Your task to perform on an android device: change the clock style Image 0: 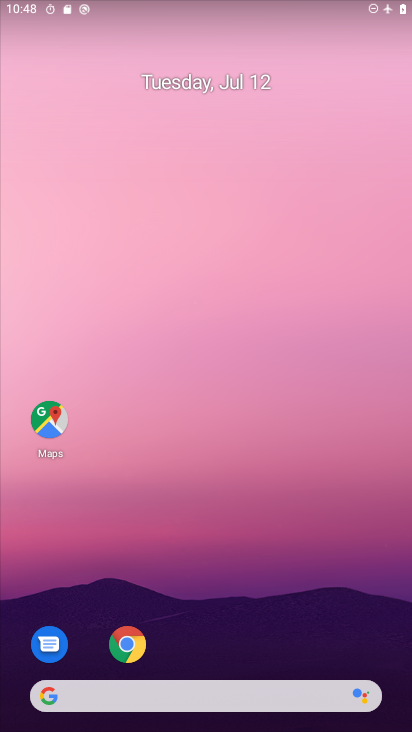
Step 0: drag from (205, 617) to (204, 184)
Your task to perform on an android device: change the clock style Image 1: 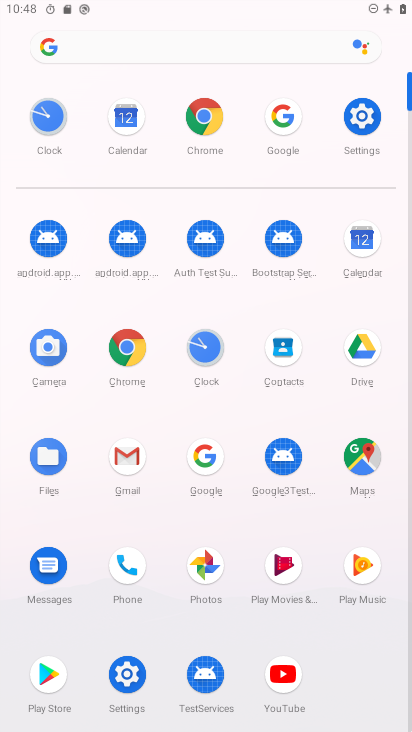
Step 1: click (52, 121)
Your task to perform on an android device: change the clock style Image 2: 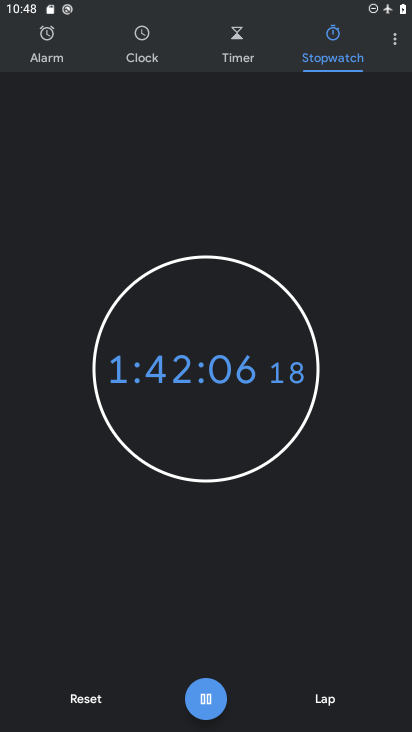
Step 2: click (390, 38)
Your task to perform on an android device: change the clock style Image 3: 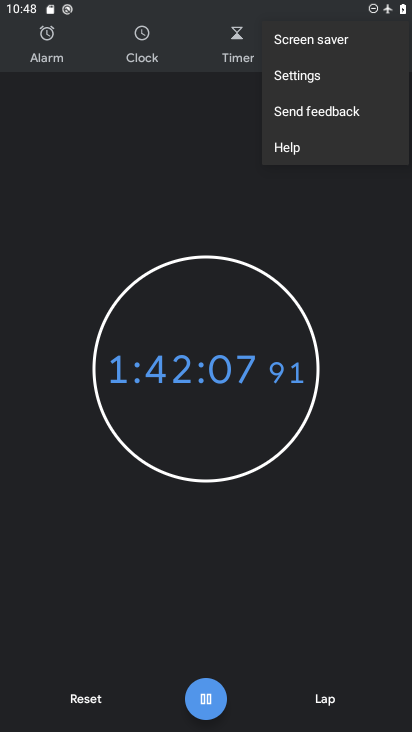
Step 3: click (329, 71)
Your task to perform on an android device: change the clock style Image 4: 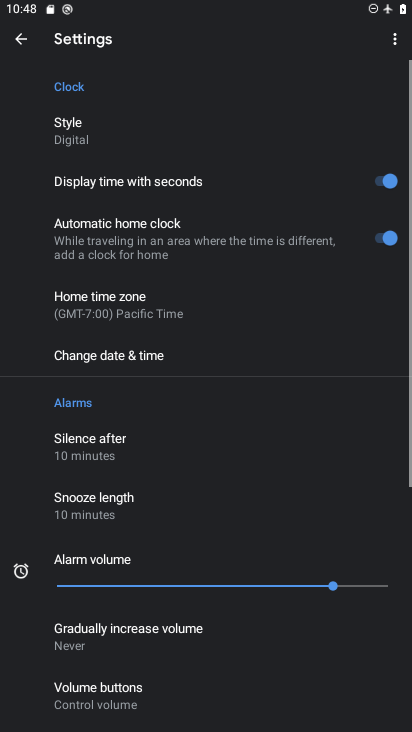
Step 4: click (136, 118)
Your task to perform on an android device: change the clock style Image 5: 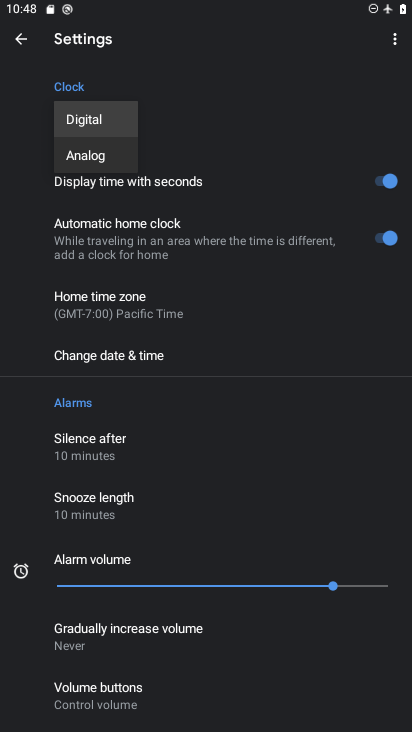
Step 5: click (124, 147)
Your task to perform on an android device: change the clock style Image 6: 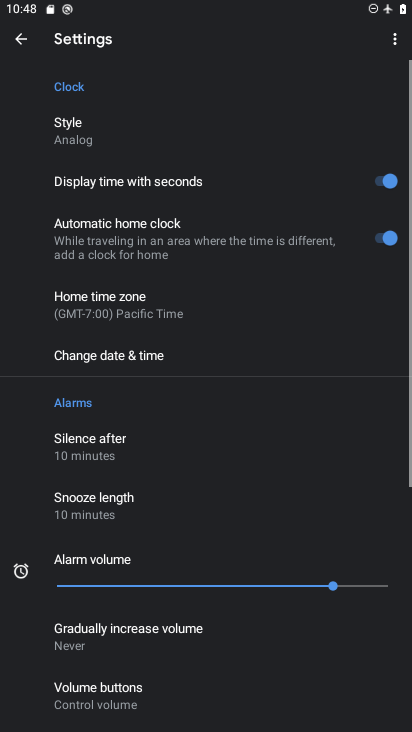
Step 6: task complete